Your task to perform on an android device: When is my next meeting? Image 0: 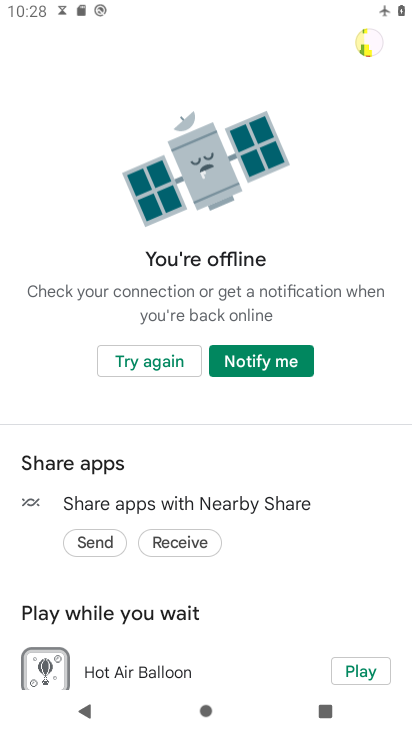
Step 0: press back button
Your task to perform on an android device: When is my next meeting? Image 1: 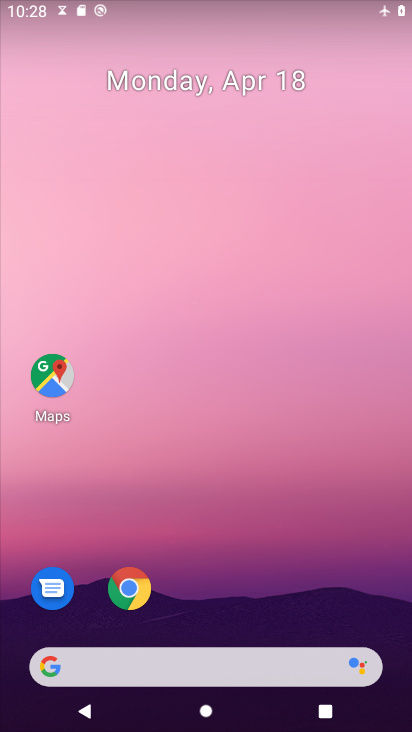
Step 1: drag from (199, 426) to (84, 66)
Your task to perform on an android device: When is my next meeting? Image 2: 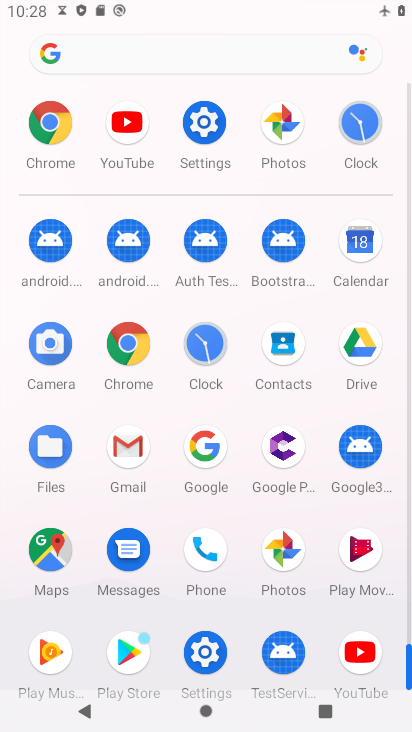
Step 2: drag from (14, 509) to (5, 257)
Your task to perform on an android device: When is my next meeting? Image 3: 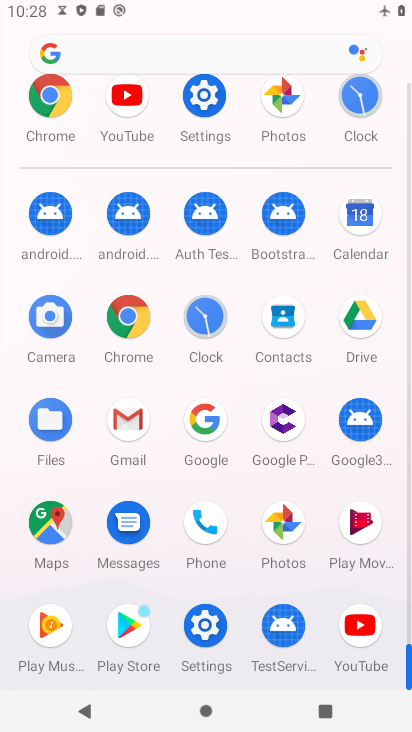
Step 3: drag from (3, 213) to (10, 419)
Your task to perform on an android device: When is my next meeting? Image 4: 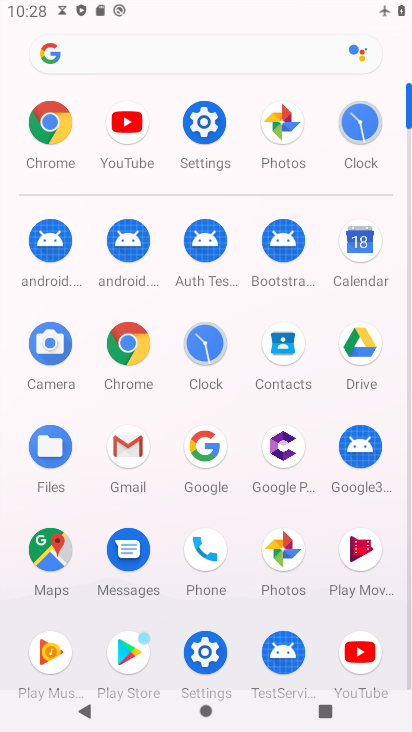
Step 4: click (361, 239)
Your task to perform on an android device: When is my next meeting? Image 5: 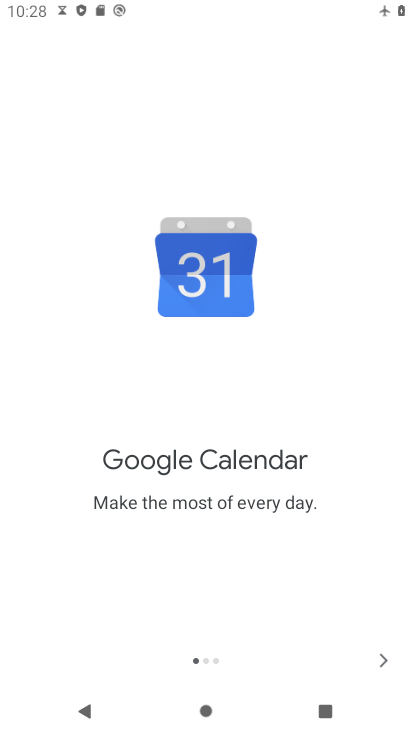
Step 5: click (378, 661)
Your task to perform on an android device: When is my next meeting? Image 6: 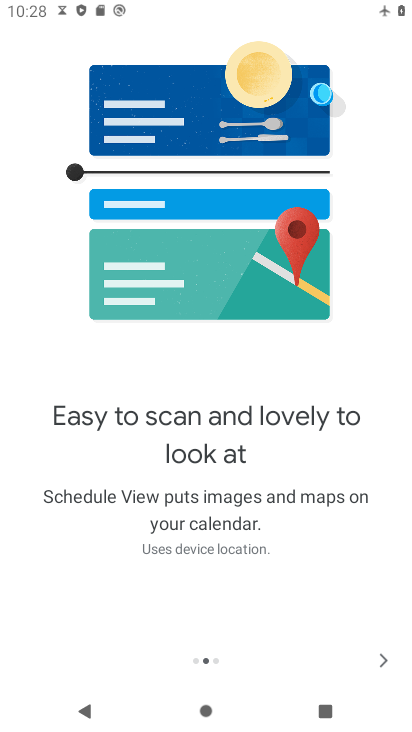
Step 6: click (378, 661)
Your task to perform on an android device: When is my next meeting? Image 7: 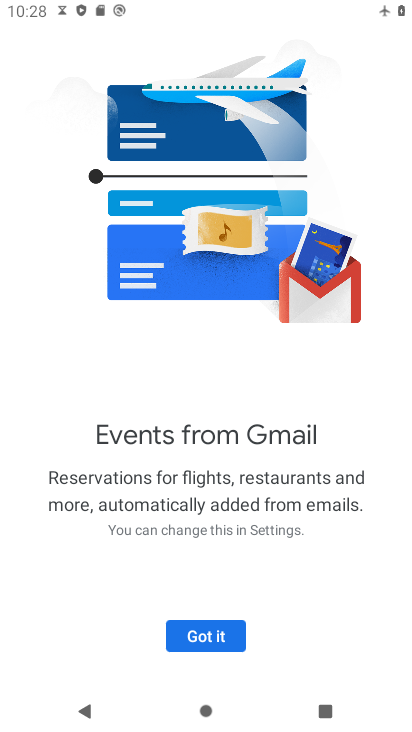
Step 7: click (204, 648)
Your task to perform on an android device: When is my next meeting? Image 8: 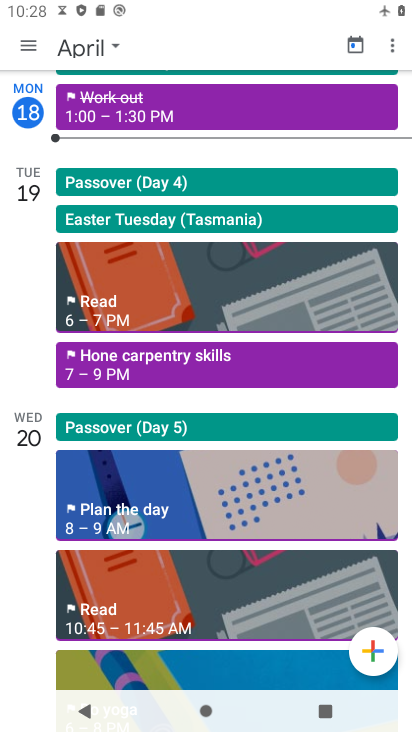
Step 8: click (40, 41)
Your task to perform on an android device: When is my next meeting? Image 9: 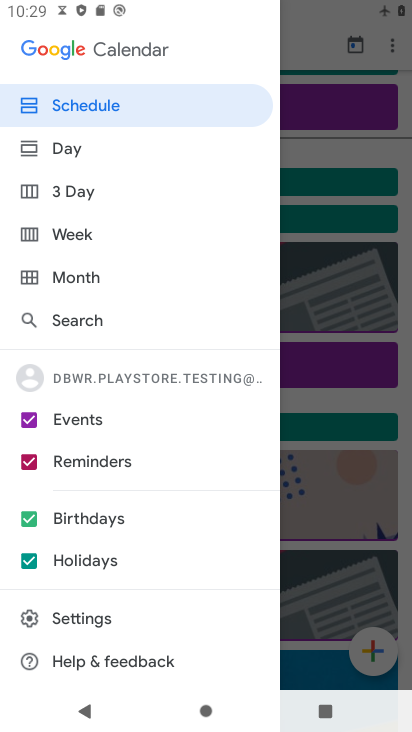
Step 9: drag from (157, 590) to (141, 483)
Your task to perform on an android device: When is my next meeting? Image 10: 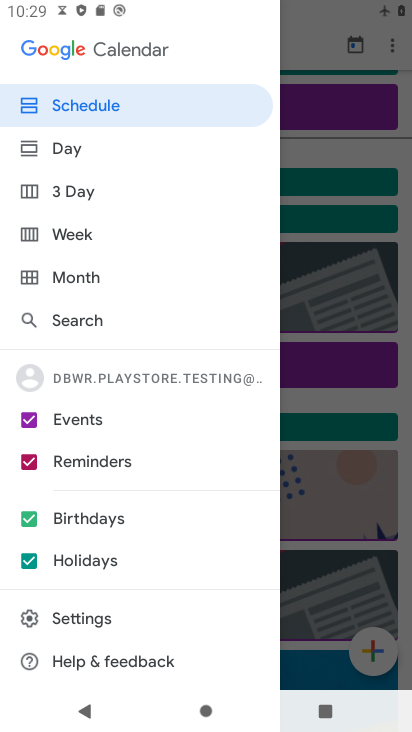
Step 10: click (29, 517)
Your task to perform on an android device: When is my next meeting? Image 11: 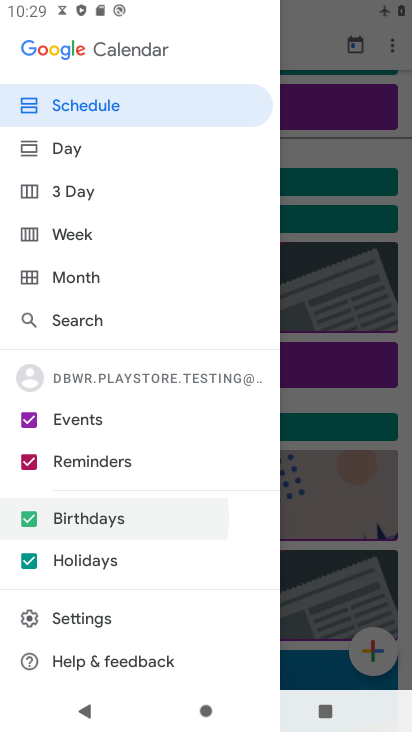
Step 11: click (32, 565)
Your task to perform on an android device: When is my next meeting? Image 12: 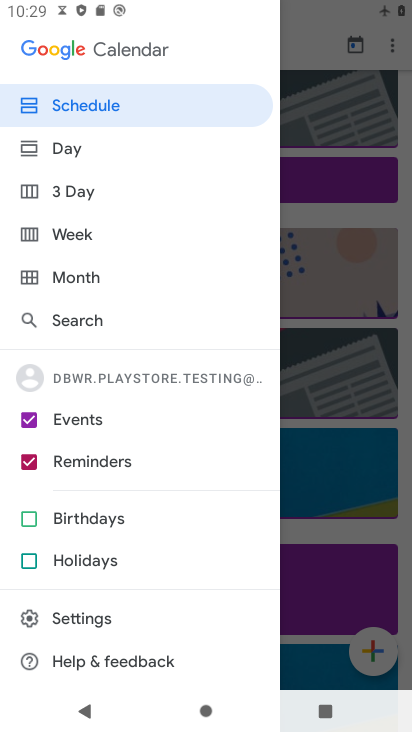
Step 12: click (30, 416)
Your task to perform on an android device: When is my next meeting? Image 13: 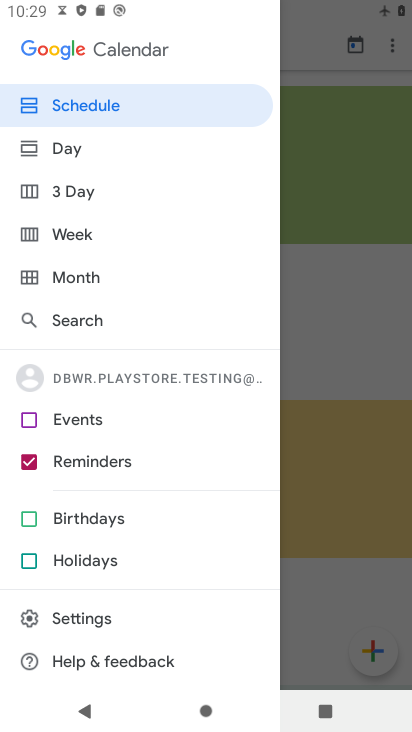
Step 13: click (330, 384)
Your task to perform on an android device: When is my next meeting? Image 14: 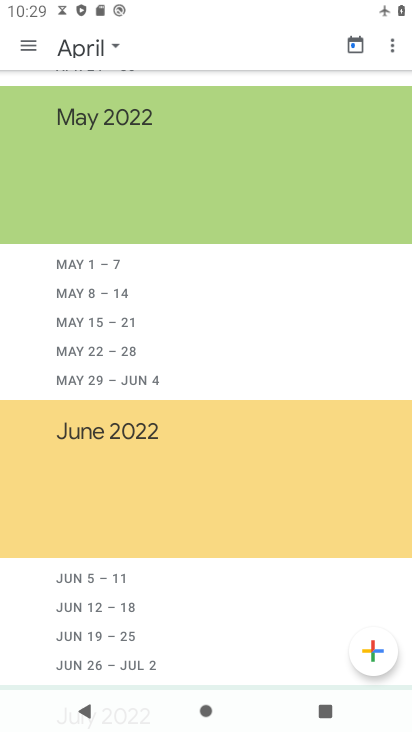
Step 14: click (283, 595)
Your task to perform on an android device: When is my next meeting? Image 15: 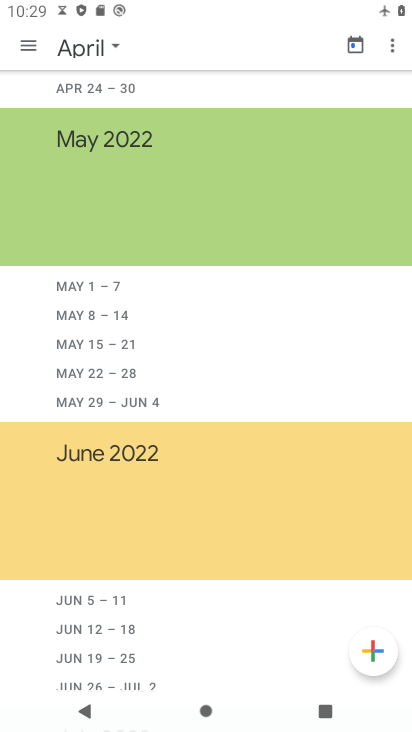
Step 15: task complete